Your task to perform on an android device: What's the weather? Image 0: 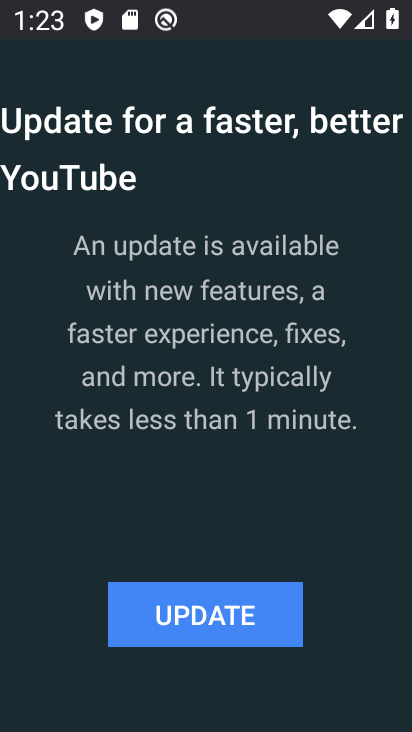
Step 0: press home button
Your task to perform on an android device: What's the weather? Image 1: 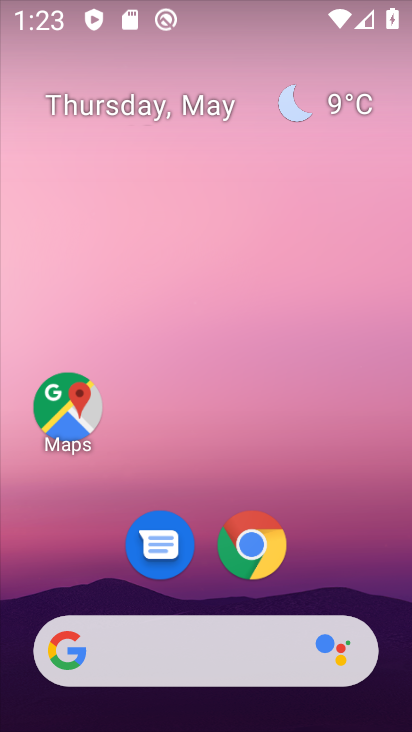
Step 1: click (341, 97)
Your task to perform on an android device: What's the weather? Image 2: 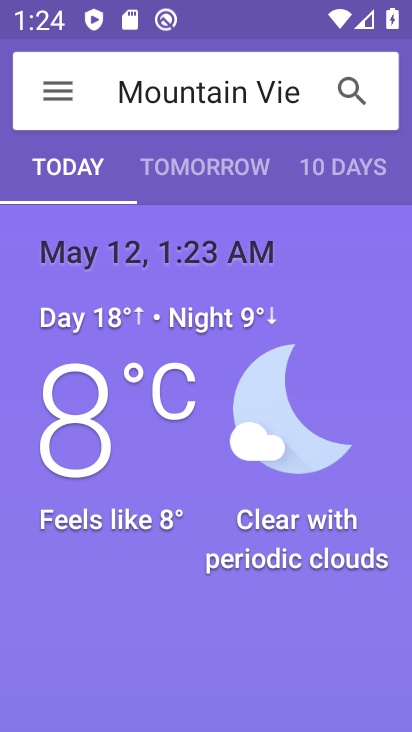
Step 2: task complete